Your task to perform on an android device: empty trash in google photos Image 0: 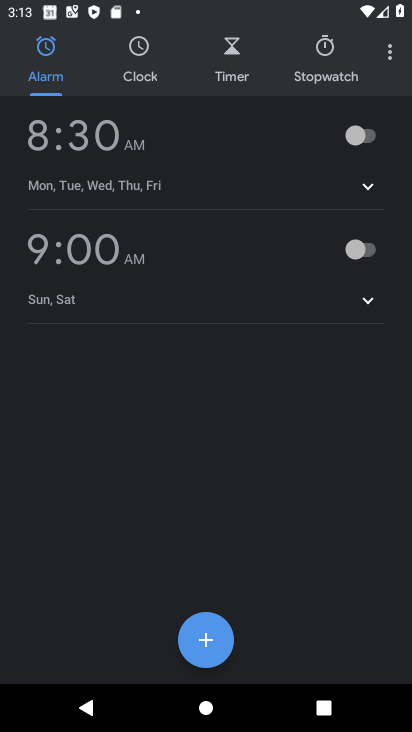
Step 0: press home button
Your task to perform on an android device: empty trash in google photos Image 1: 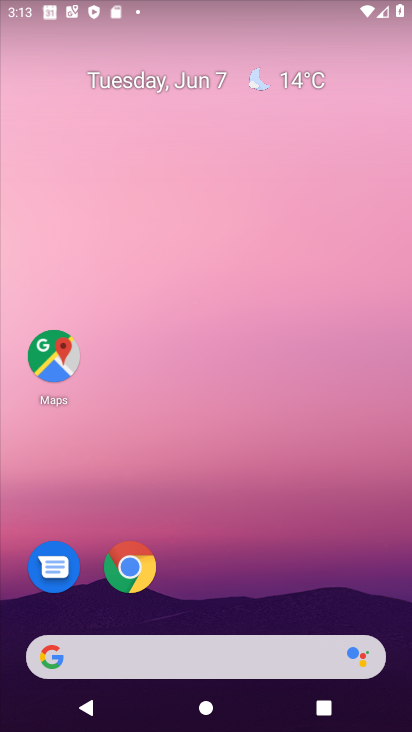
Step 1: drag from (218, 595) to (233, 206)
Your task to perform on an android device: empty trash in google photos Image 2: 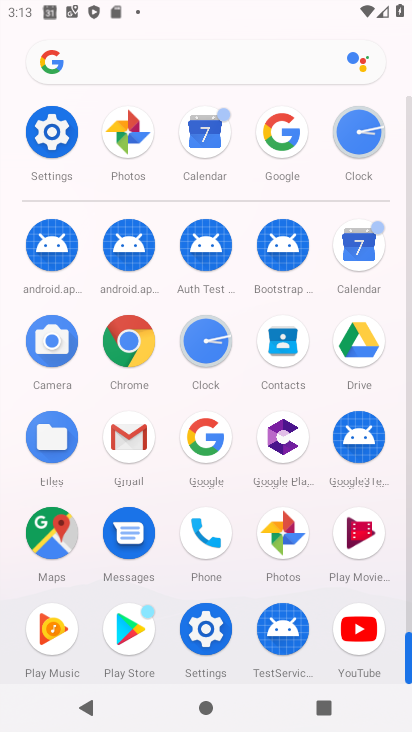
Step 2: click (131, 149)
Your task to perform on an android device: empty trash in google photos Image 3: 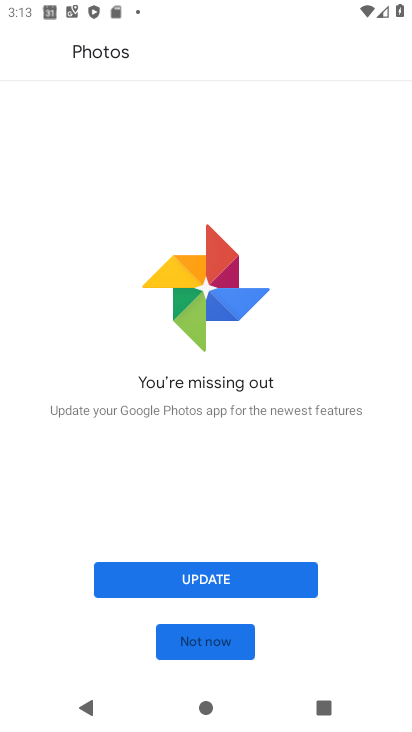
Step 3: click (221, 632)
Your task to perform on an android device: empty trash in google photos Image 4: 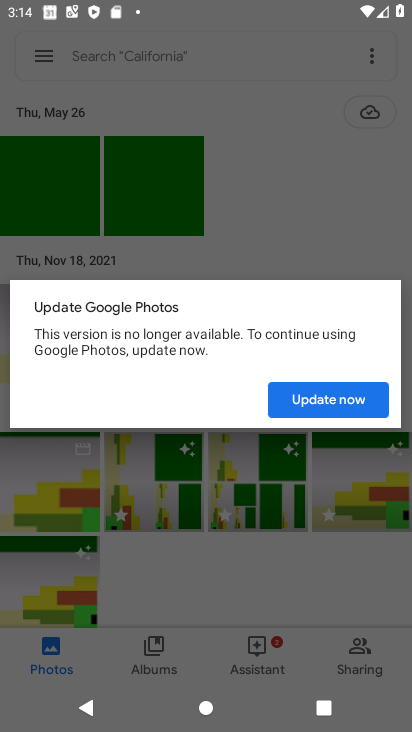
Step 4: click (295, 403)
Your task to perform on an android device: empty trash in google photos Image 5: 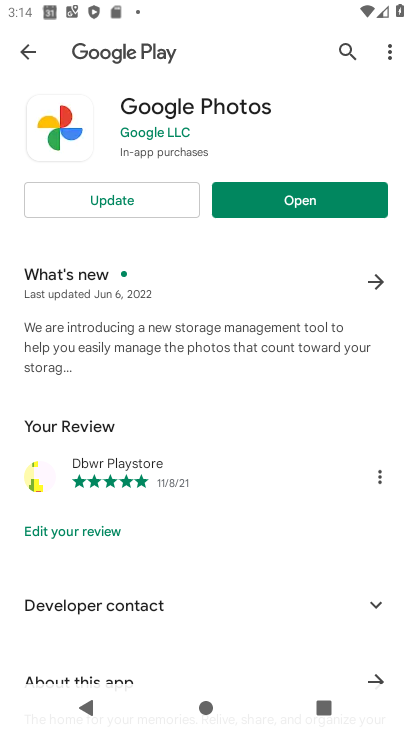
Step 5: click (251, 197)
Your task to perform on an android device: empty trash in google photos Image 6: 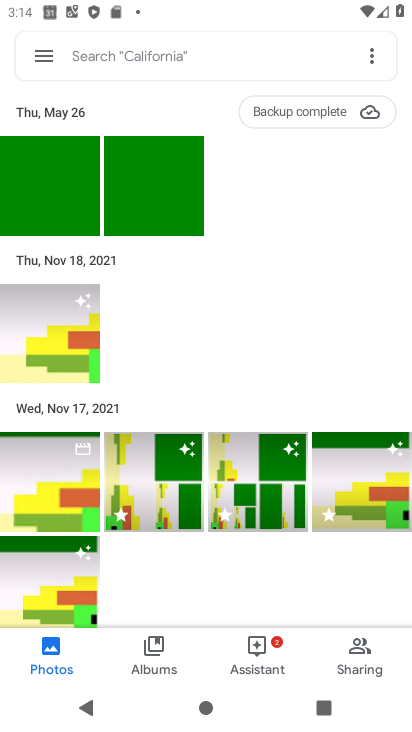
Step 6: click (54, 57)
Your task to perform on an android device: empty trash in google photos Image 7: 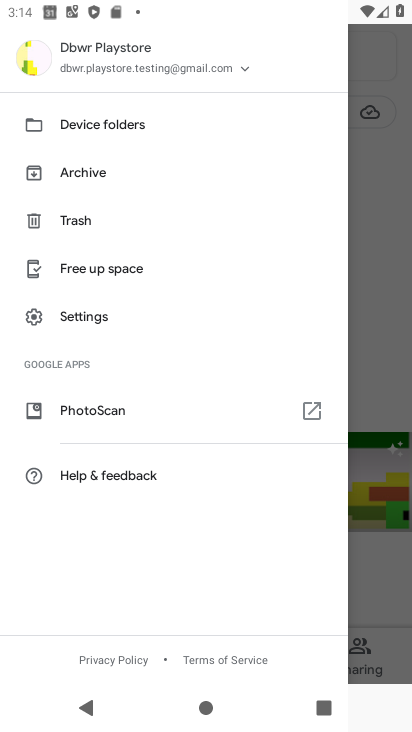
Step 7: click (82, 221)
Your task to perform on an android device: empty trash in google photos Image 8: 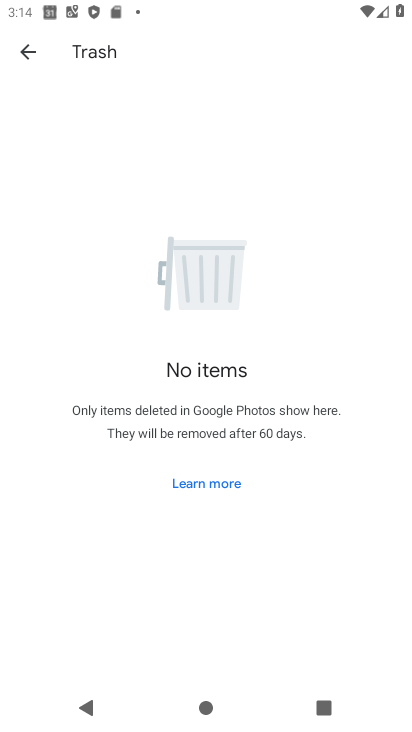
Step 8: task complete